Your task to perform on an android device: Toggle the flashlight Image 0: 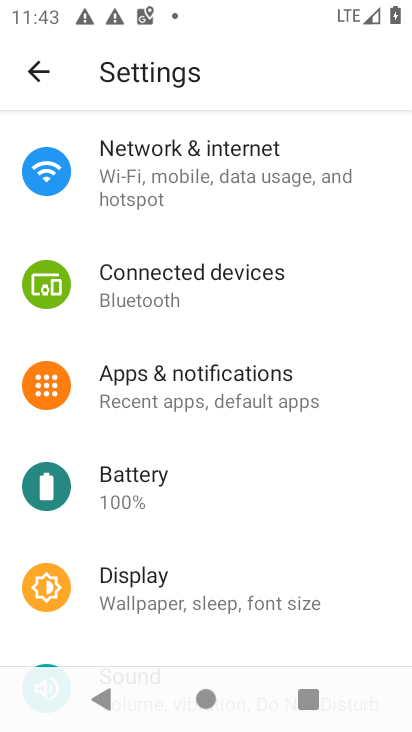
Step 0: click (129, 583)
Your task to perform on an android device: Toggle the flashlight Image 1: 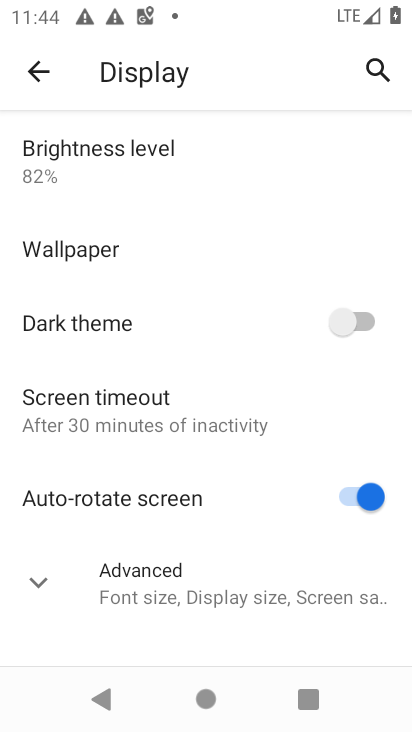
Step 1: task complete